Your task to perform on an android device: Open network settings Image 0: 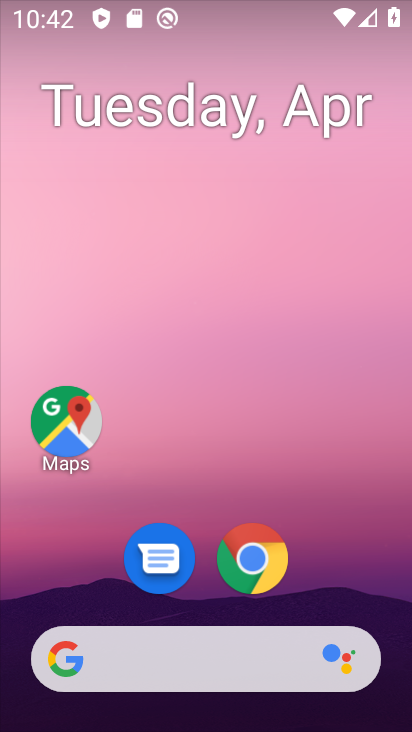
Step 0: drag from (308, 492) to (356, 99)
Your task to perform on an android device: Open network settings Image 1: 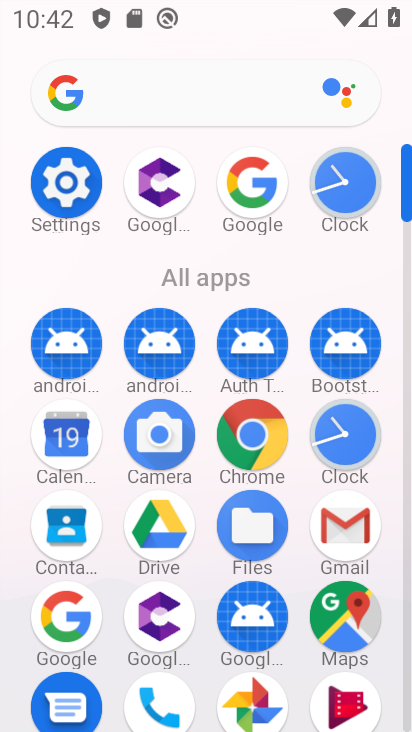
Step 1: click (63, 180)
Your task to perform on an android device: Open network settings Image 2: 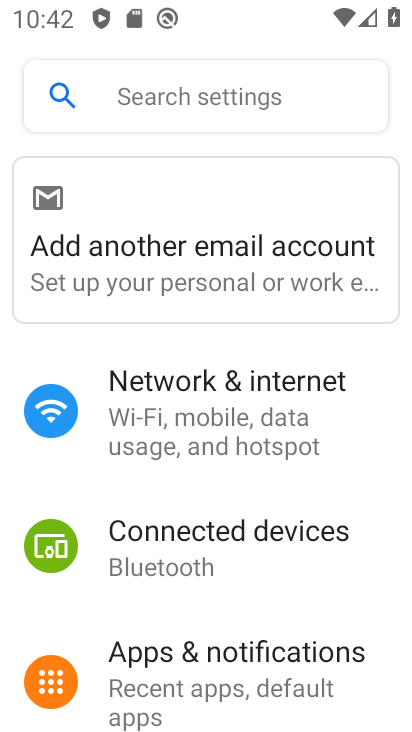
Step 2: click (220, 393)
Your task to perform on an android device: Open network settings Image 3: 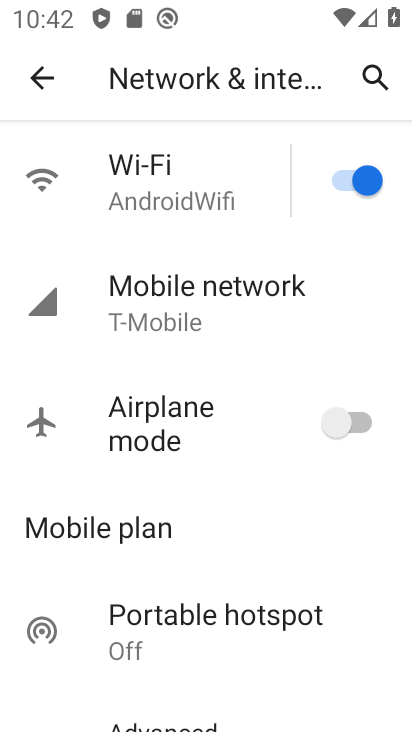
Step 3: task complete